Your task to perform on an android device: add a contact in the contacts app Image 0: 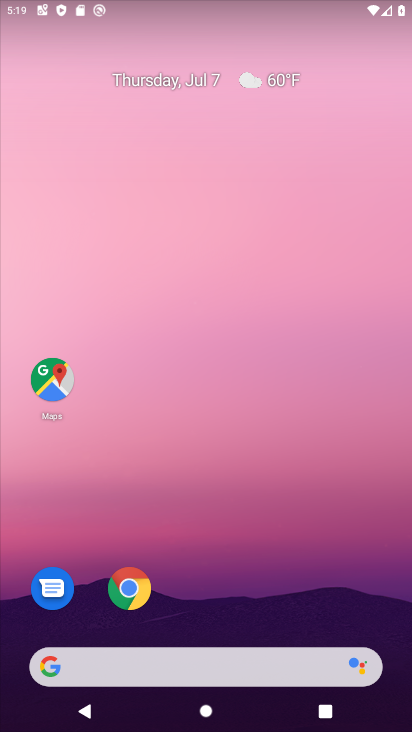
Step 0: drag from (163, 577) to (208, 39)
Your task to perform on an android device: add a contact in the contacts app Image 1: 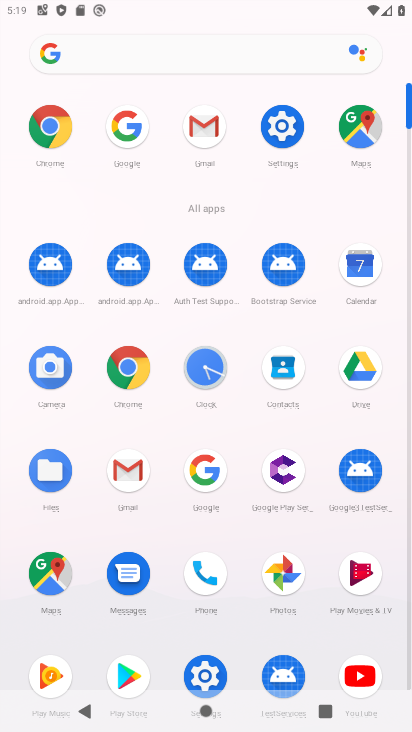
Step 1: click (284, 362)
Your task to perform on an android device: add a contact in the contacts app Image 2: 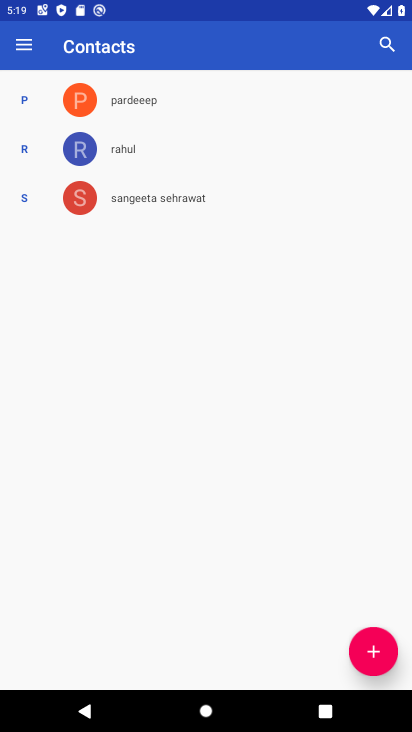
Step 2: click (367, 652)
Your task to perform on an android device: add a contact in the contacts app Image 3: 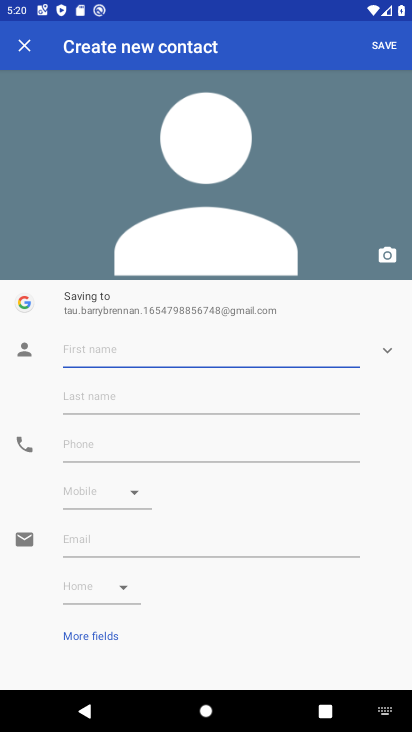
Step 3: click (75, 343)
Your task to perform on an android device: add a contact in the contacts app Image 4: 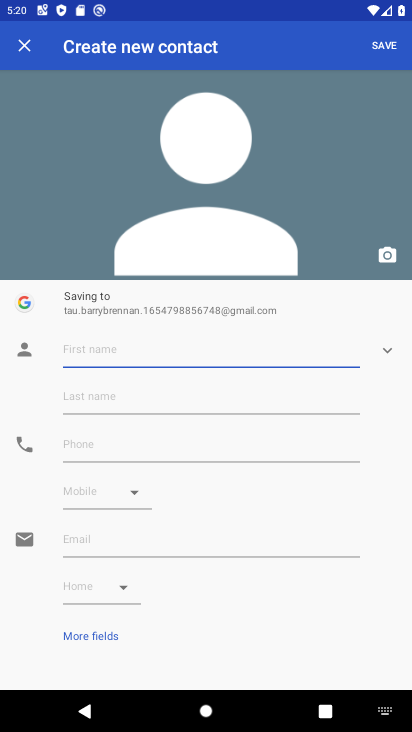
Step 4: type "njnj"
Your task to perform on an android device: add a contact in the contacts app Image 5: 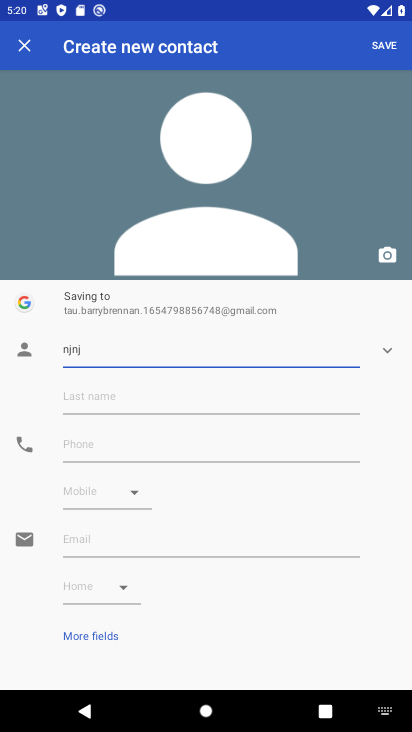
Step 5: click (103, 447)
Your task to perform on an android device: add a contact in the contacts app Image 6: 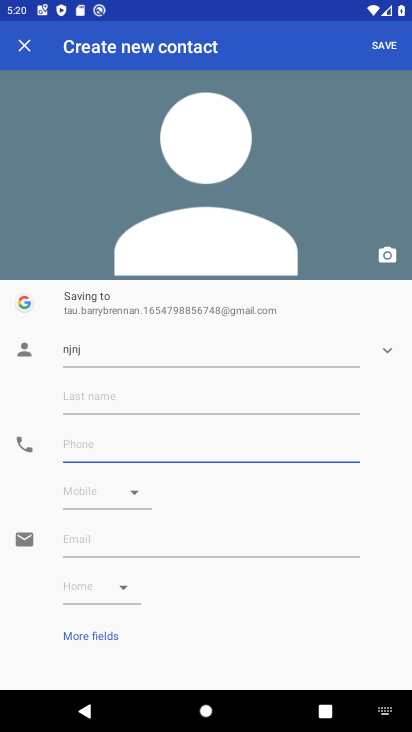
Step 6: type "87870"
Your task to perform on an android device: add a contact in the contacts app Image 7: 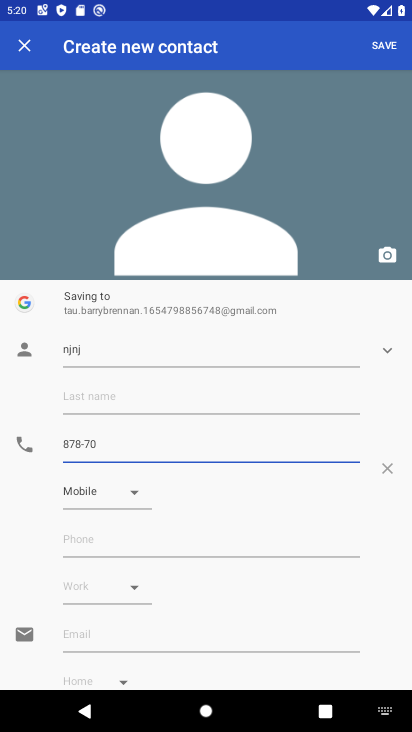
Step 7: click (386, 42)
Your task to perform on an android device: add a contact in the contacts app Image 8: 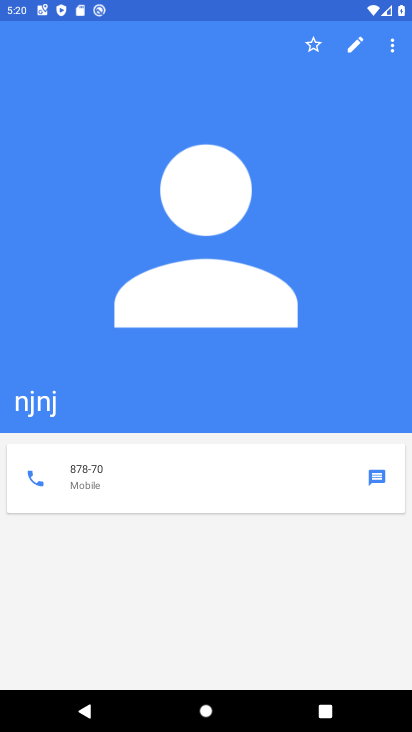
Step 8: task complete